Your task to perform on an android device: Set the phone to "Do not disturb". Image 0: 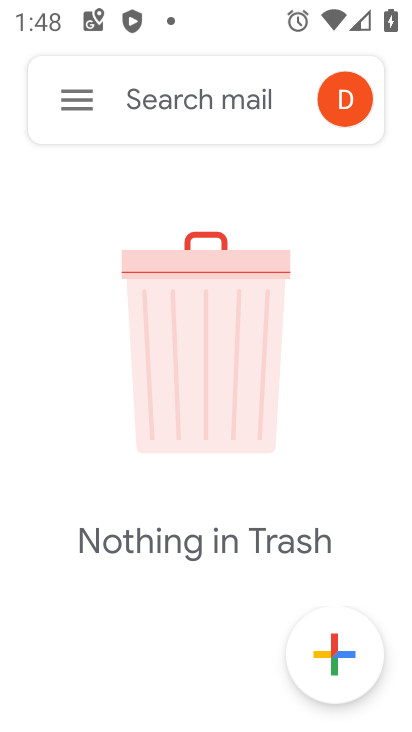
Step 0: press home button
Your task to perform on an android device: Set the phone to "Do not disturb". Image 1: 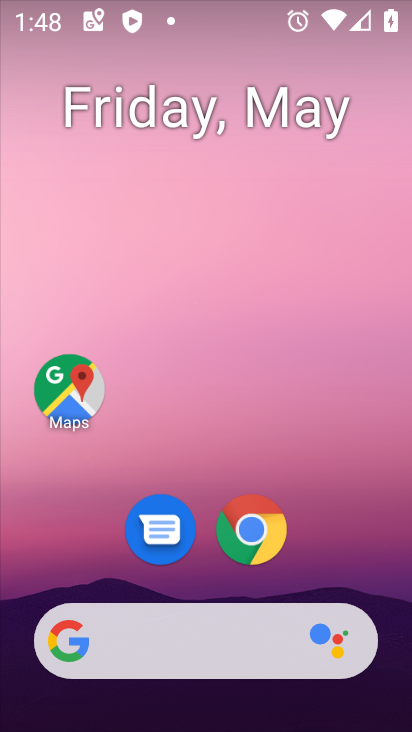
Step 1: drag from (399, 678) to (338, 239)
Your task to perform on an android device: Set the phone to "Do not disturb". Image 2: 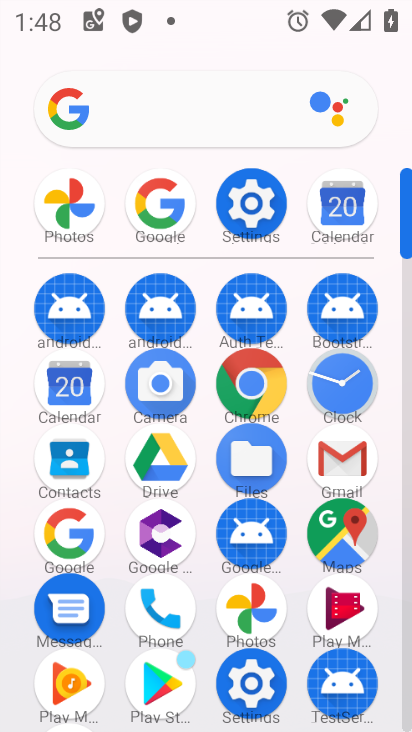
Step 2: click (249, 670)
Your task to perform on an android device: Set the phone to "Do not disturb". Image 3: 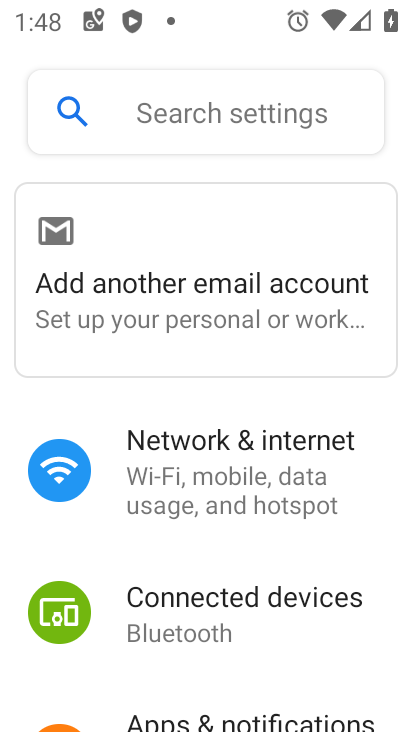
Step 3: drag from (260, 679) to (272, 241)
Your task to perform on an android device: Set the phone to "Do not disturb". Image 4: 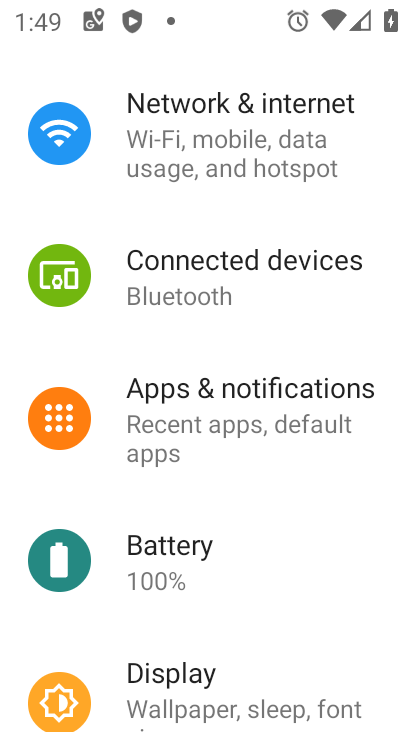
Step 4: drag from (288, 680) to (281, 417)
Your task to perform on an android device: Set the phone to "Do not disturb". Image 5: 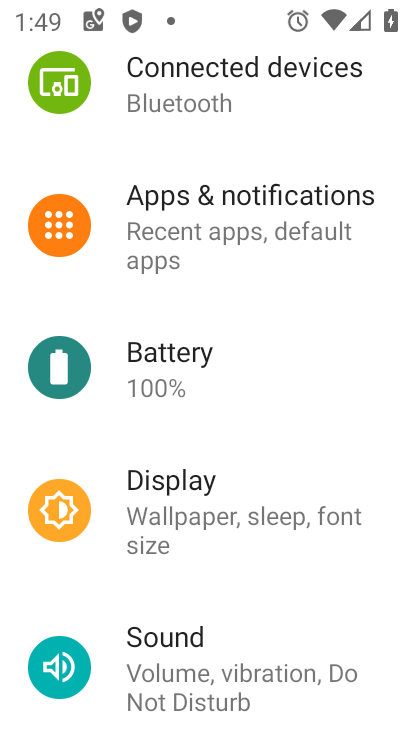
Step 5: click (193, 688)
Your task to perform on an android device: Set the phone to "Do not disturb". Image 6: 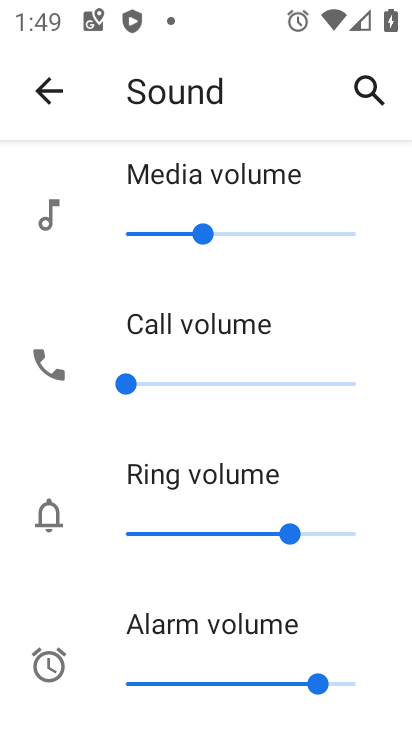
Step 6: drag from (372, 637) to (327, 284)
Your task to perform on an android device: Set the phone to "Do not disturb". Image 7: 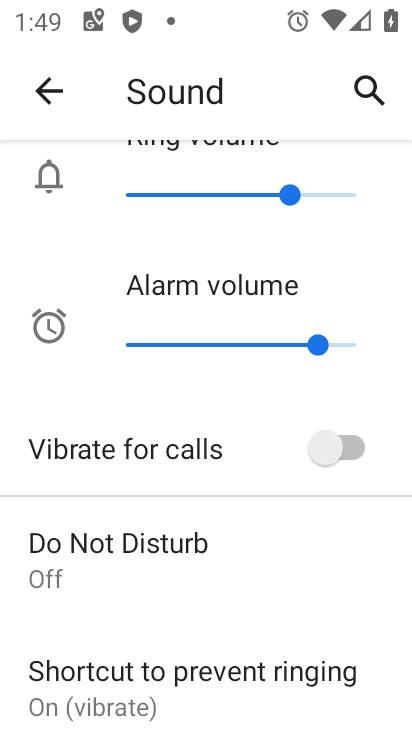
Step 7: click (82, 539)
Your task to perform on an android device: Set the phone to "Do not disturb". Image 8: 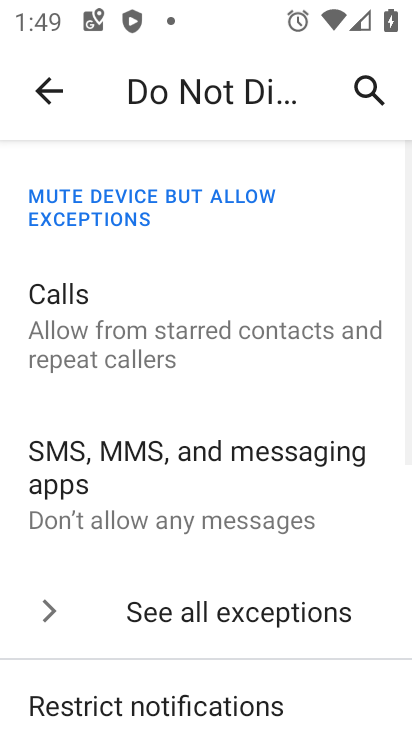
Step 8: drag from (327, 712) to (278, 250)
Your task to perform on an android device: Set the phone to "Do not disturb". Image 9: 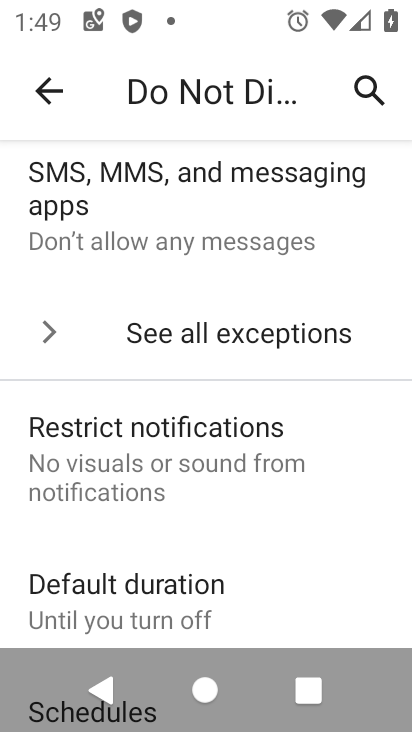
Step 9: drag from (263, 627) to (230, 281)
Your task to perform on an android device: Set the phone to "Do not disturb". Image 10: 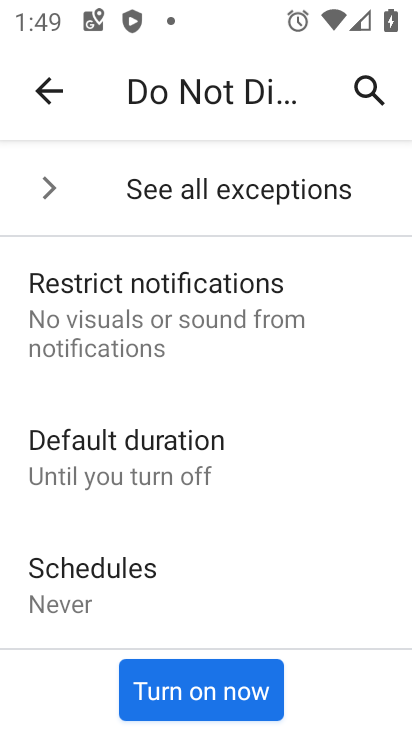
Step 10: click (182, 704)
Your task to perform on an android device: Set the phone to "Do not disturb". Image 11: 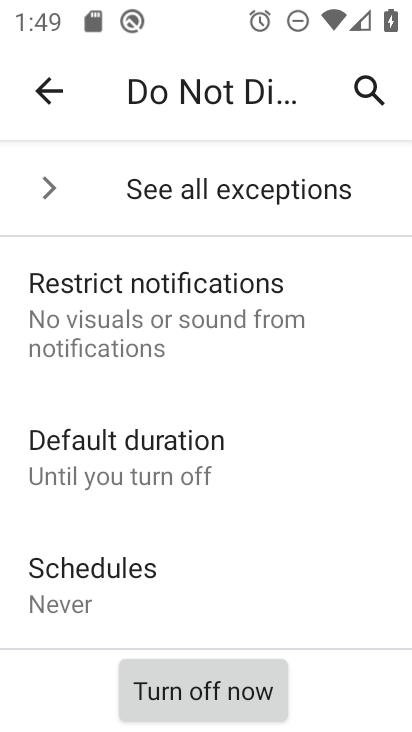
Step 11: task complete